Your task to perform on an android device: check android version Image 0: 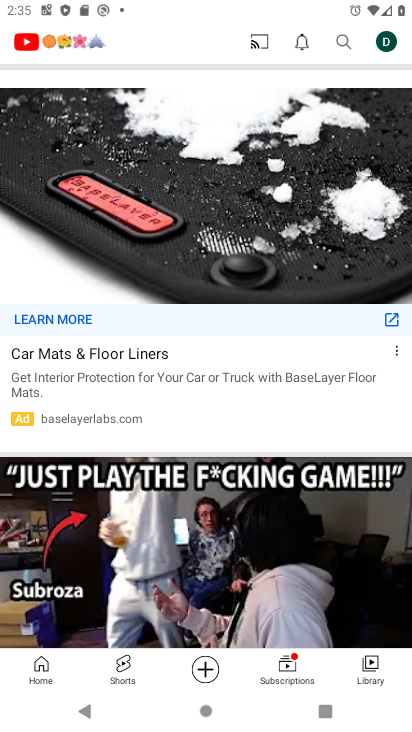
Step 0: drag from (232, 608) to (286, 213)
Your task to perform on an android device: check android version Image 1: 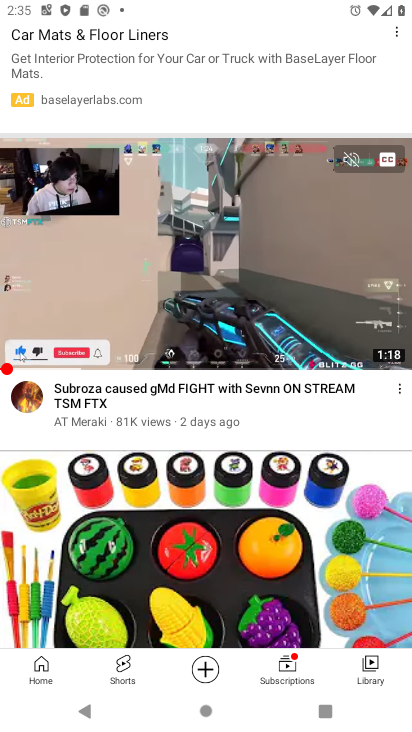
Step 1: task complete